Your task to perform on an android device: Open network settings Image 0: 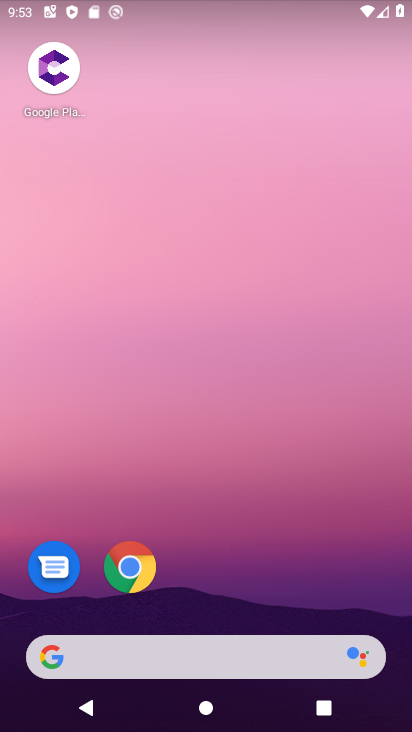
Step 0: drag from (214, 637) to (163, 11)
Your task to perform on an android device: Open network settings Image 1: 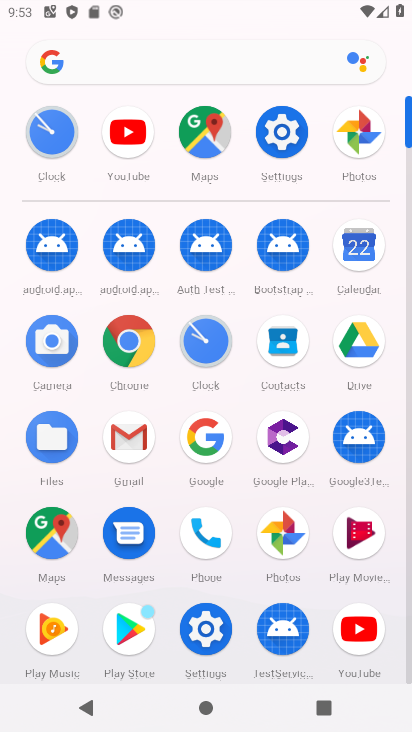
Step 1: click (198, 650)
Your task to perform on an android device: Open network settings Image 2: 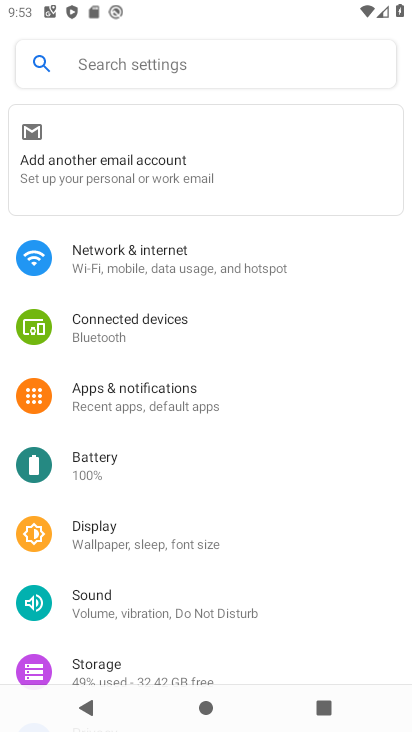
Step 2: click (181, 263)
Your task to perform on an android device: Open network settings Image 3: 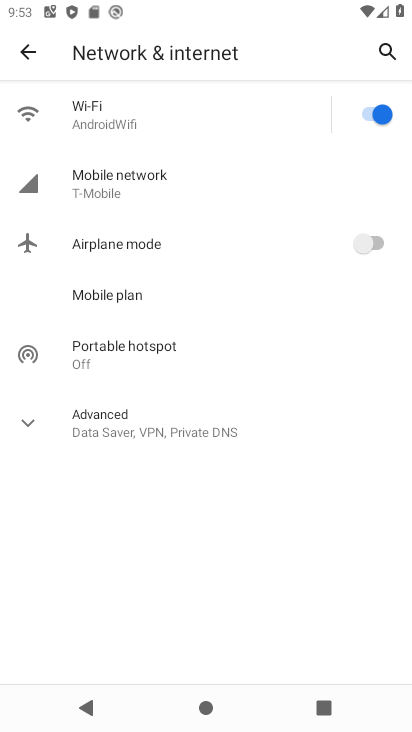
Step 3: click (95, 172)
Your task to perform on an android device: Open network settings Image 4: 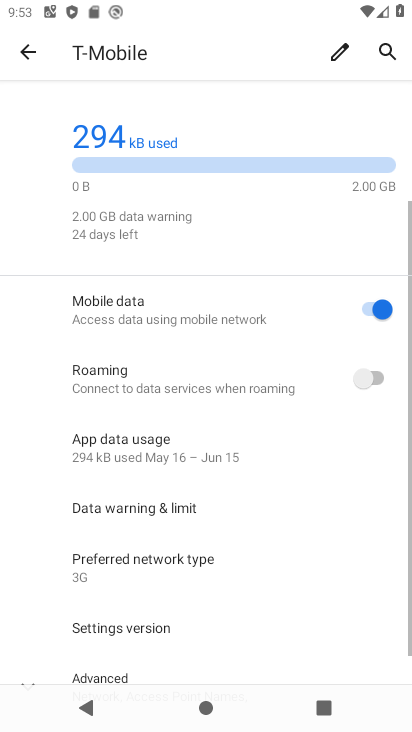
Step 4: task complete